Your task to perform on an android device: Go to Android settings Image 0: 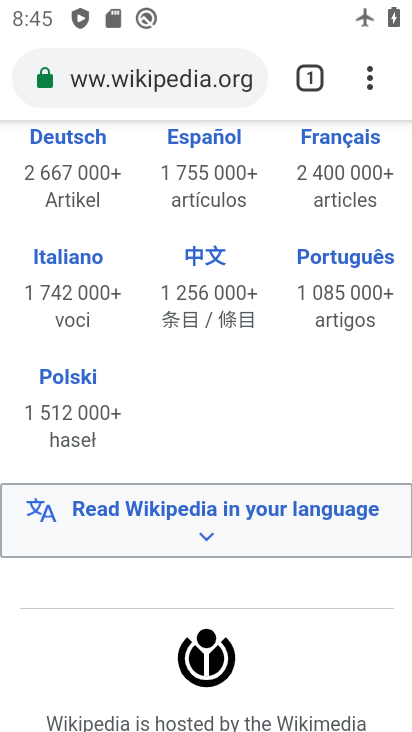
Step 0: press home button
Your task to perform on an android device: Go to Android settings Image 1: 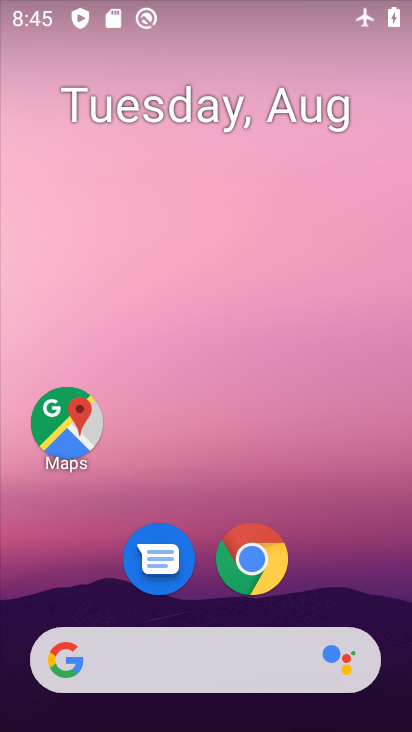
Step 1: drag from (340, 568) to (342, 12)
Your task to perform on an android device: Go to Android settings Image 2: 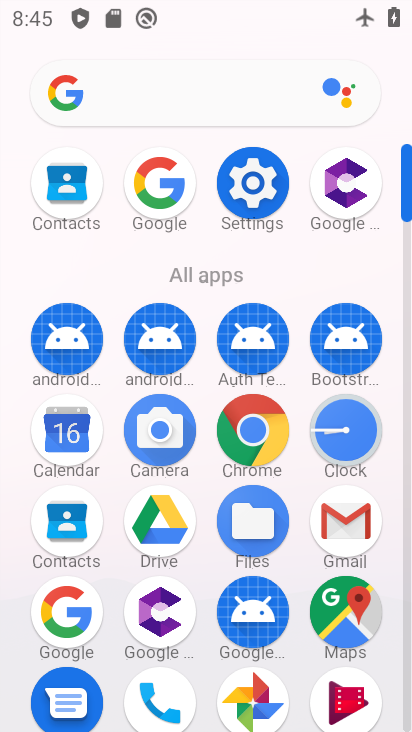
Step 2: drag from (188, 594) to (252, 139)
Your task to perform on an android device: Go to Android settings Image 3: 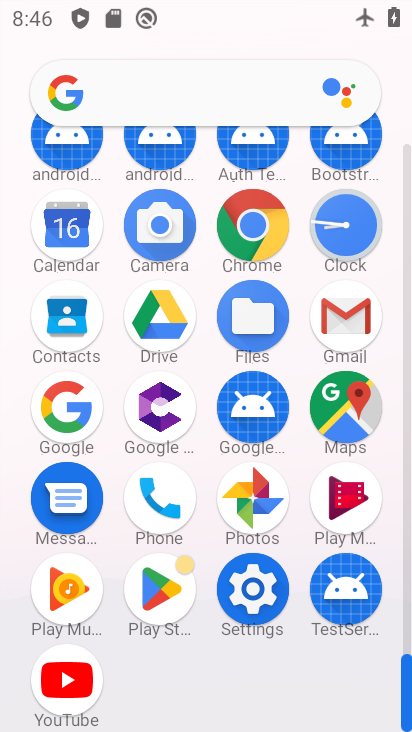
Step 3: click (253, 595)
Your task to perform on an android device: Go to Android settings Image 4: 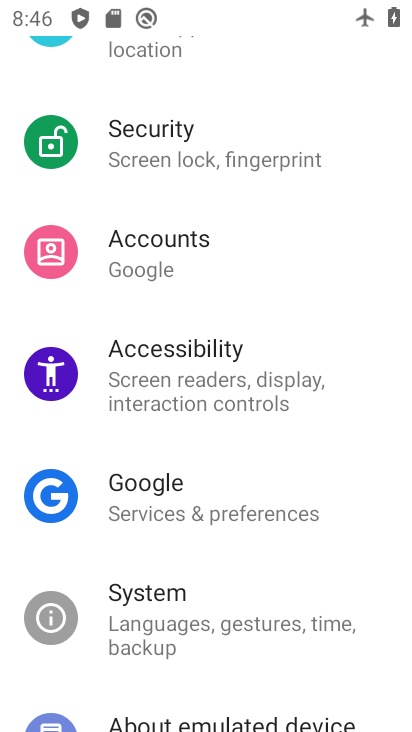
Step 4: drag from (264, 658) to (311, 229)
Your task to perform on an android device: Go to Android settings Image 5: 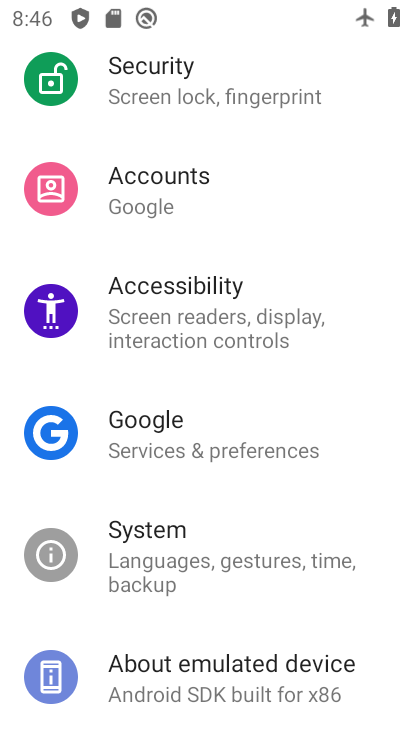
Step 5: click (210, 680)
Your task to perform on an android device: Go to Android settings Image 6: 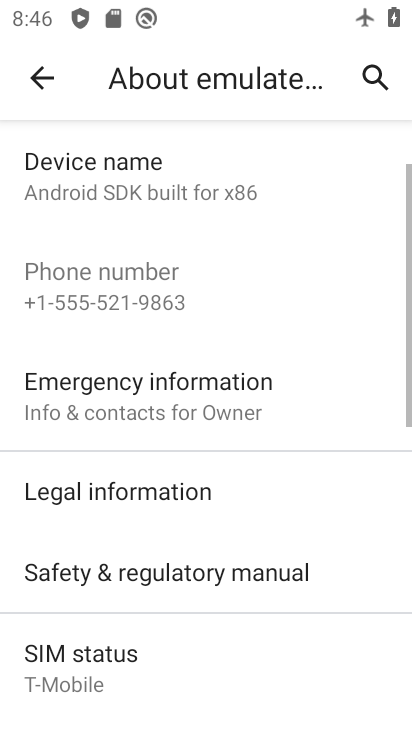
Step 6: drag from (218, 634) to (219, 248)
Your task to perform on an android device: Go to Android settings Image 7: 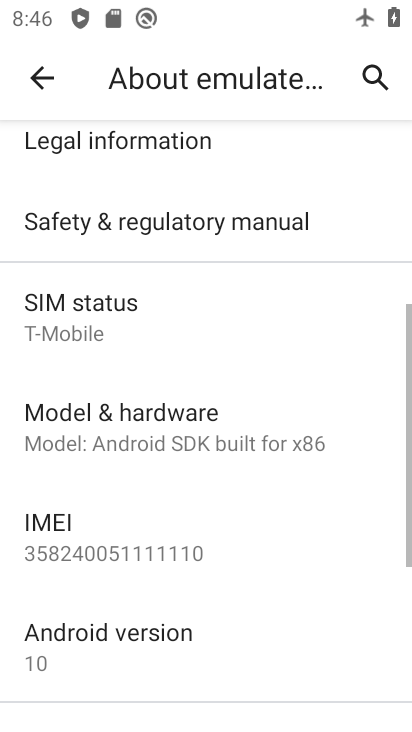
Step 7: click (111, 637)
Your task to perform on an android device: Go to Android settings Image 8: 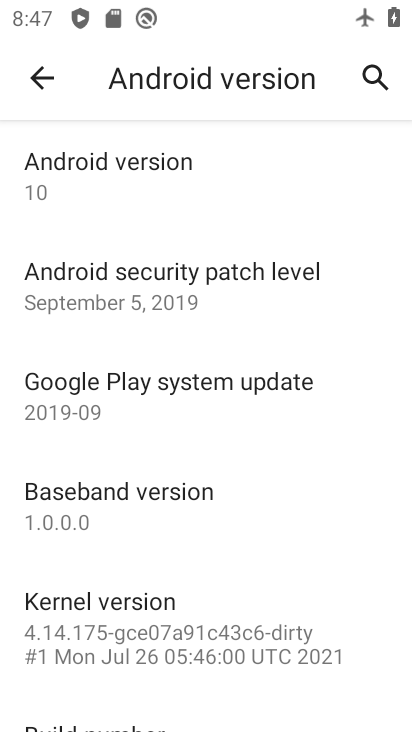
Step 8: task complete